Your task to perform on an android device: allow cookies in the chrome app Image 0: 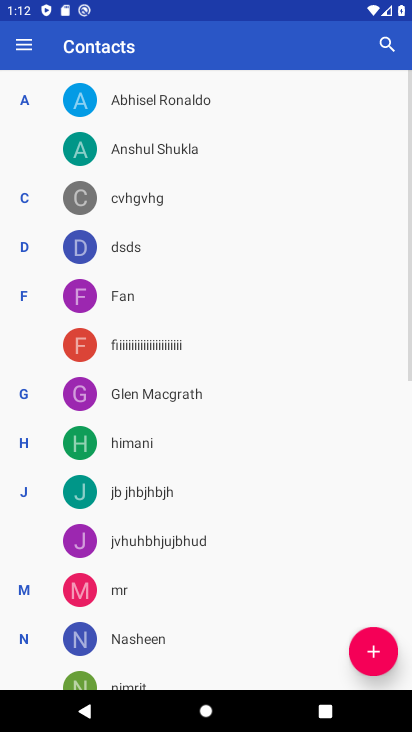
Step 0: press home button
Your task to perform on an android device: allow cookies in the chrome app Image 1: 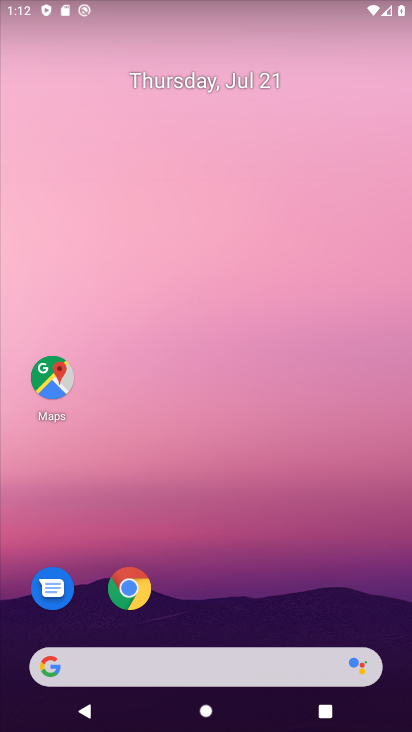
Step 1: click (125, 576)
Your task to perform on an android device: allow cookies in the chrome app Image 2: 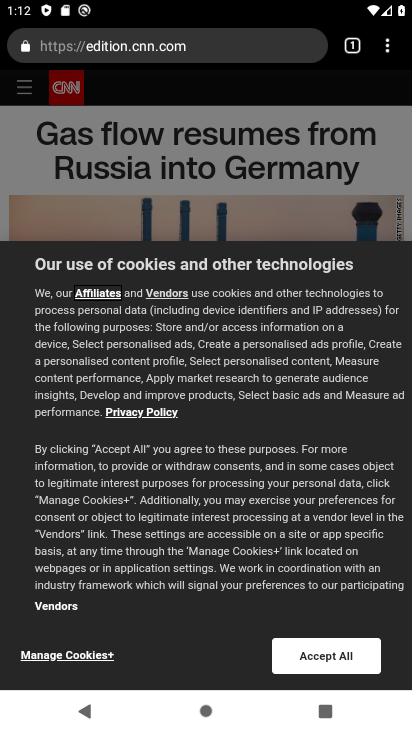
Step 2: click (335, 640)
Your task to perform on an android device: allow cookies in the chrome app Image 3: 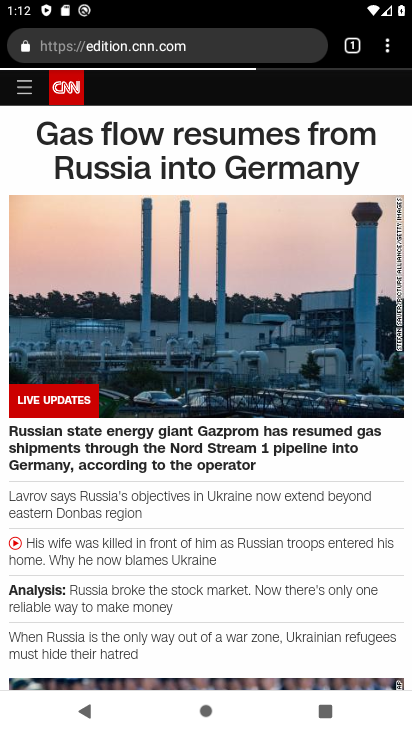
Step 3: drag from (386, 44) to (215, 503)
Your task to perform on an android device: allow cookies in the chrome app Image 4: 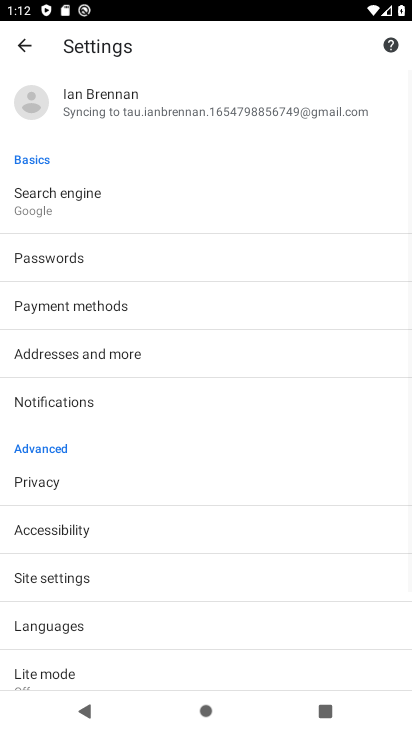
Step 4: click (99, 578)
Your task to perform on an android device: allow cookies in the chrome app Image 5: 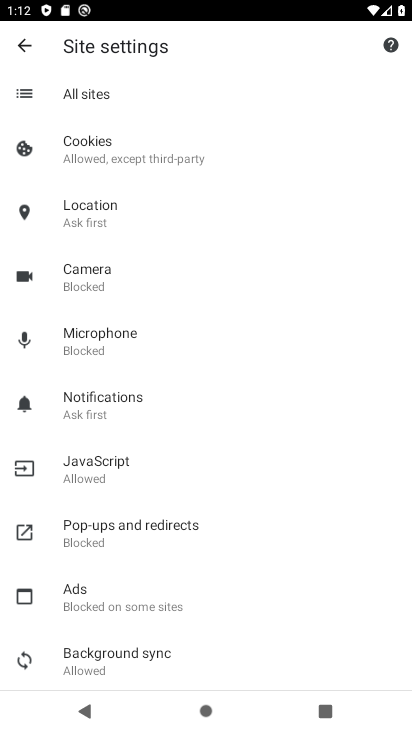
Step 5: click (82, 155)
Your task to perform on an android device: allow cookies in the chrome app Image 6: 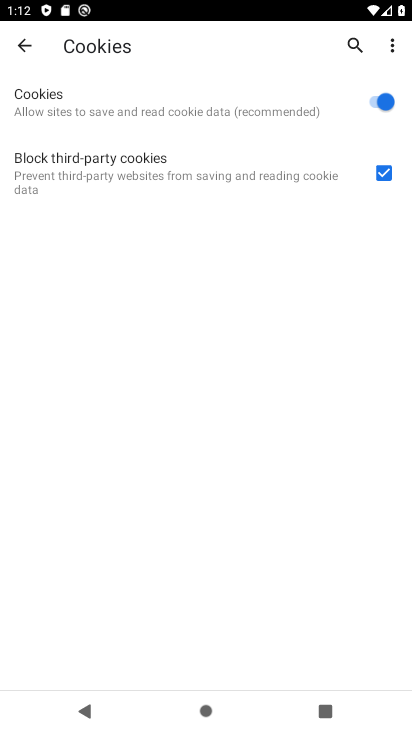
Step 6: task complete